Your task to perform on an android device: turn off smart reply in the gmail app Image 0: 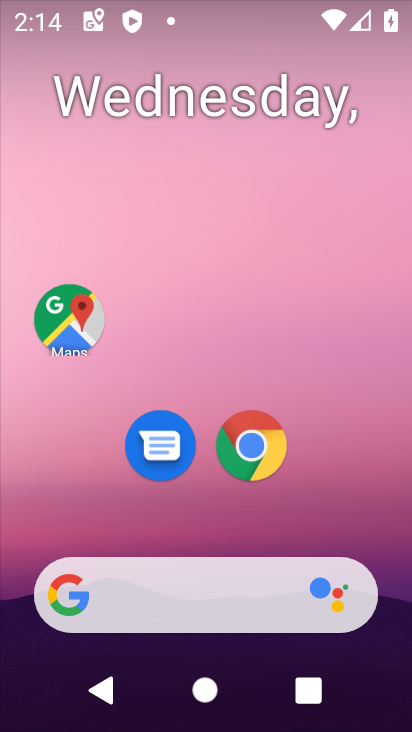
Step 0: drag from (218, 531) to (183, 212)
Your task to perform on an android device: turn off smart reply in the gmail app Image 1: 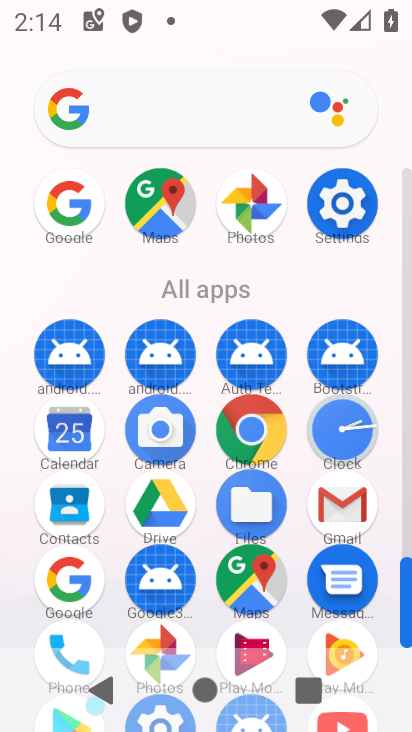
Step 1: click (318, 504)
Your task to perform on an android device: turn off smart reply in the gmail app Image 2: 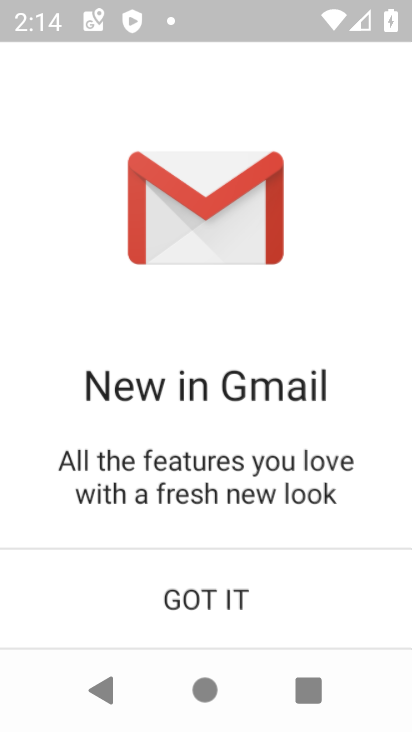
Step 2: click (226, 578)
Your task to perform on an android device: turn off smart reply in the gmail app Image 3: 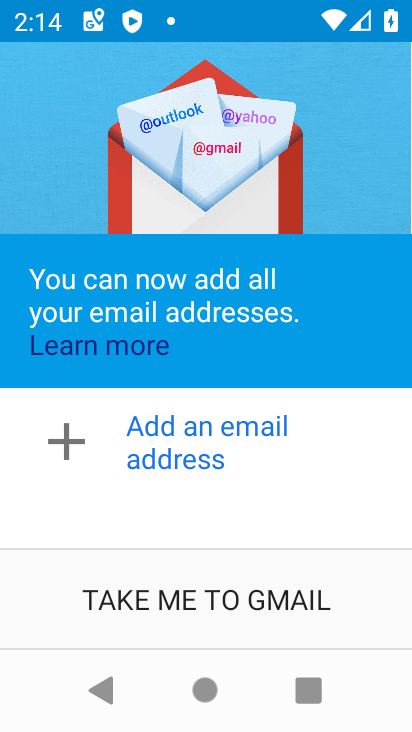
Step 3: click (226, 578)
Your task to perform on an android device: turn off smart reply in the gmail app Image 4: 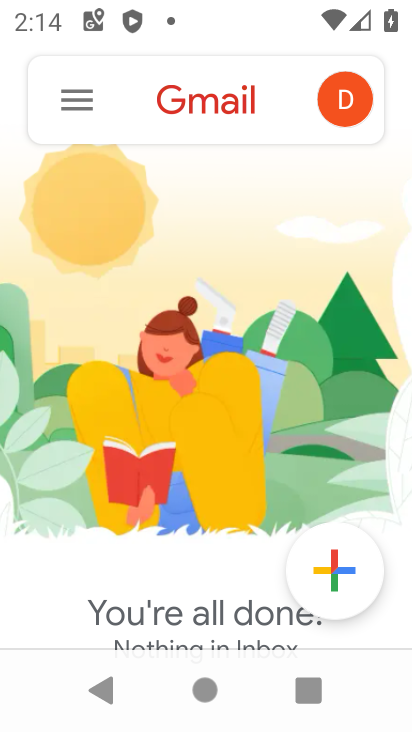
Step 4: click (70, 89)
Your task to perform on an android device: turn off smart reply in the gmail app Image 5: 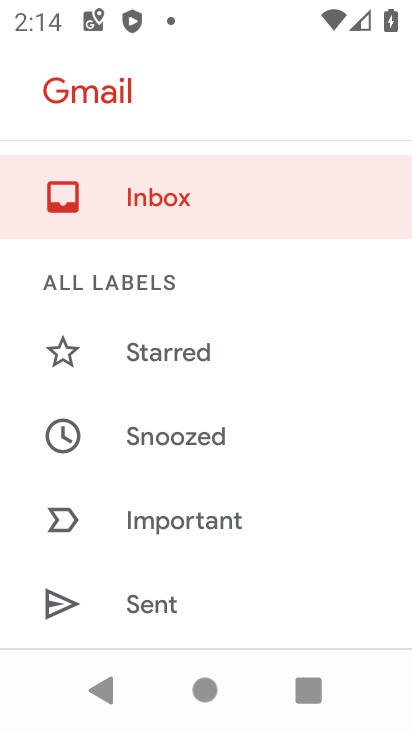
Step 5: click (180, 442)
Your task to perform on an android device: turn off smart reply in the gmail app Image 6: 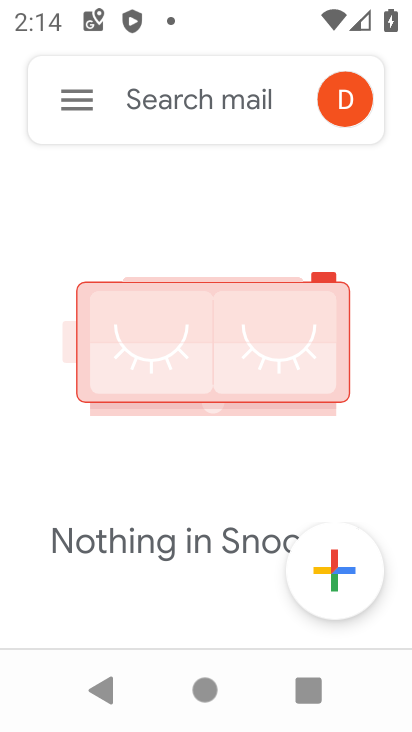
Step 6: click (86, 90)
Your task to perform on an android device: turn off smart reply in the gmail app Image 7: 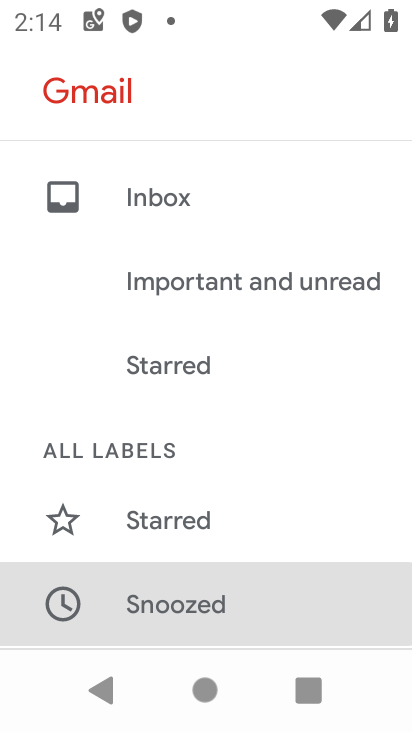
Step 7: drag from (235, 539) to (215, 319)
Your task to perform on an android device: turn off smart reply in the gmail app Image 8: 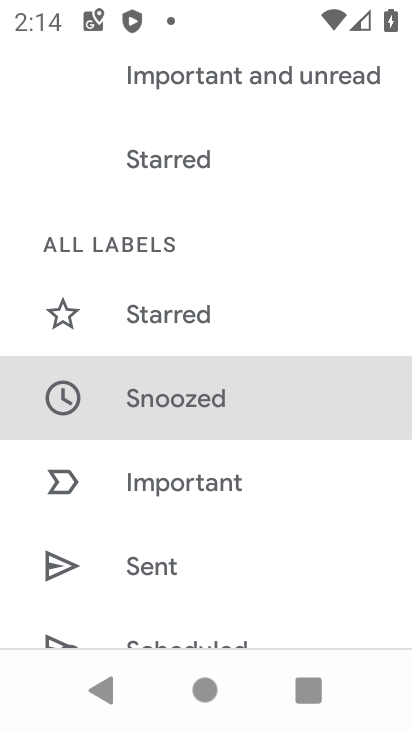
Step 8: drag from (233, 559) to (244, 288)
Your task to perform on an android device: turn off smart reply in the gmail app Image 9: 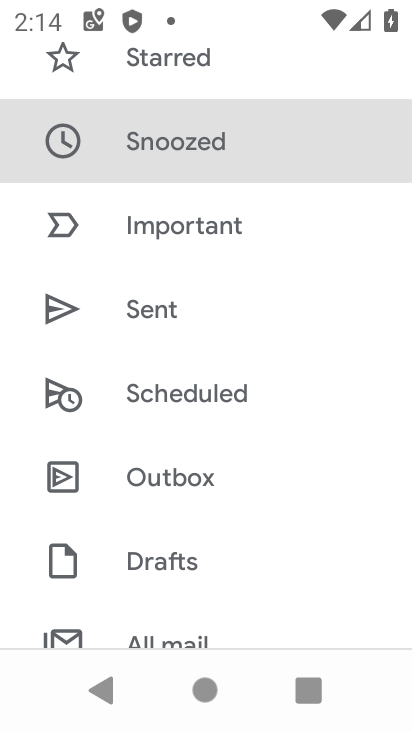
Step 9: drag from (239, 541) to (244, 256)
Your task to perform on an android device: turn off smart reply in the gmail app Image 10: 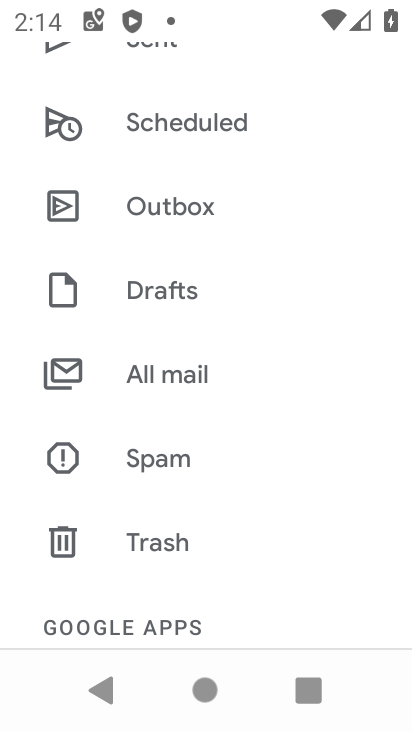
Step 10: drag from (209, 603) to (247, 341)
Your task to perform on an android device: turn off smart reply in the gmail app Image 11: 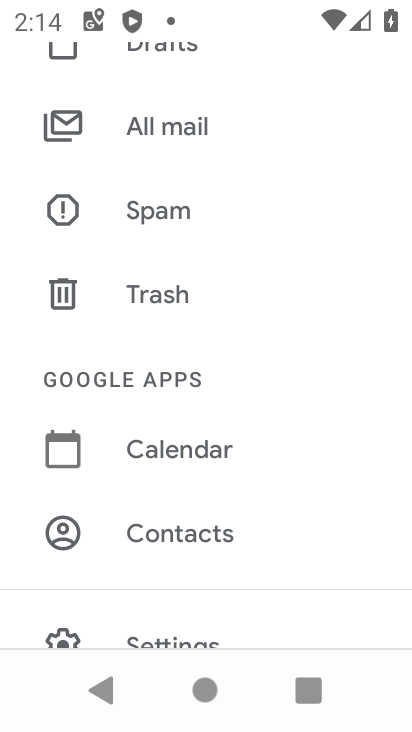
Step 11: click (210, 631)
Your task to perform on an android device: turn off smart reply in the gmail app Image 12: 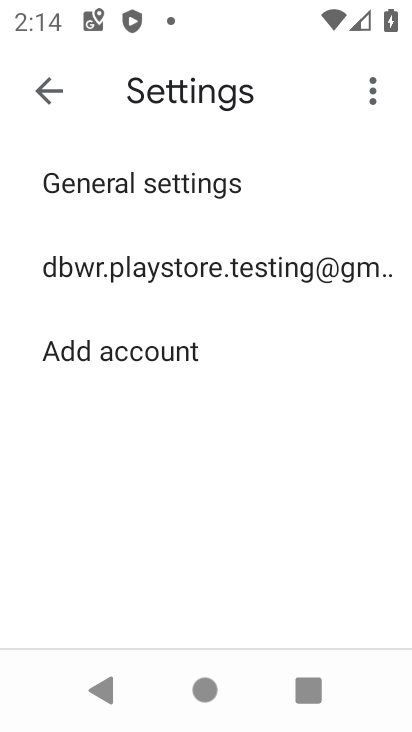
Step 12: click (238, 278)
Your task to perform on an android device: turn off smart reply in the gmail app Image 13: 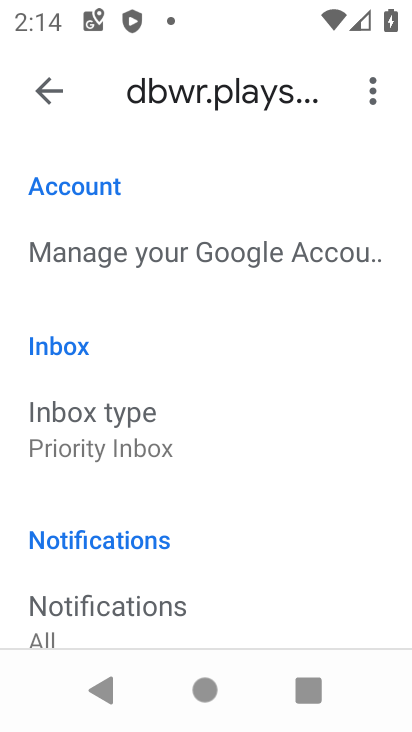
Step 13: drag from (274, 556) to (282, 327)
Your task to perform on an android device: turn off smart reply in the gmail app Image 14: 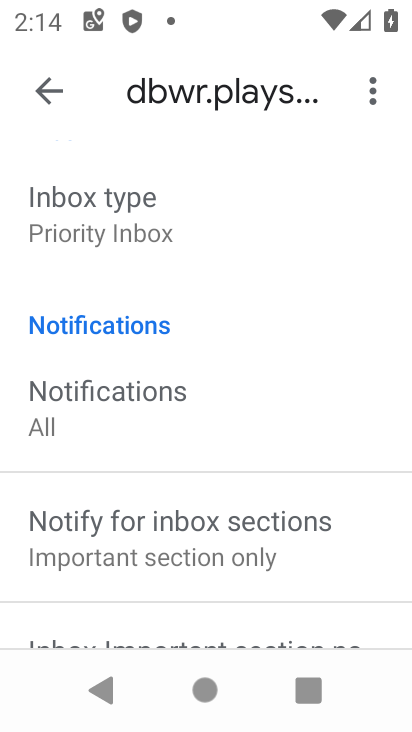
Step 14: drag from (271, 536) to (284, 254)
Your task to perform on an android device: turn off smart reply in the gmail app Image 15: 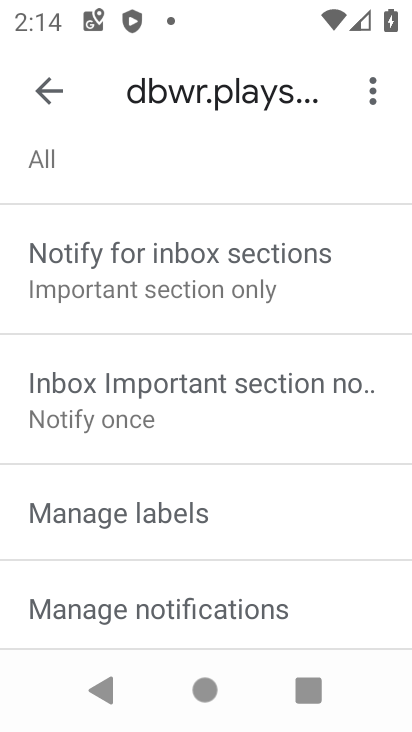
Step 15: drag from (270, 580) to (286, 296)
Your task to perform on an android device: turn off smart reply in the gmail app Image 16: 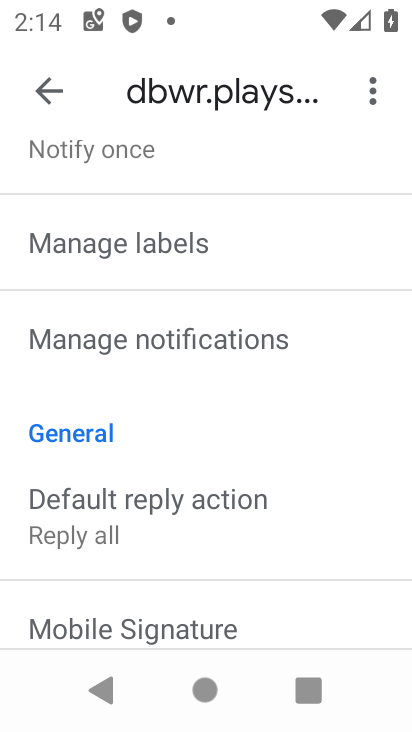
Step 16: drag from (239, 540) to (298, 258)
Your task to perform on an android device: turn off smart reply in the gmail app Image 17: 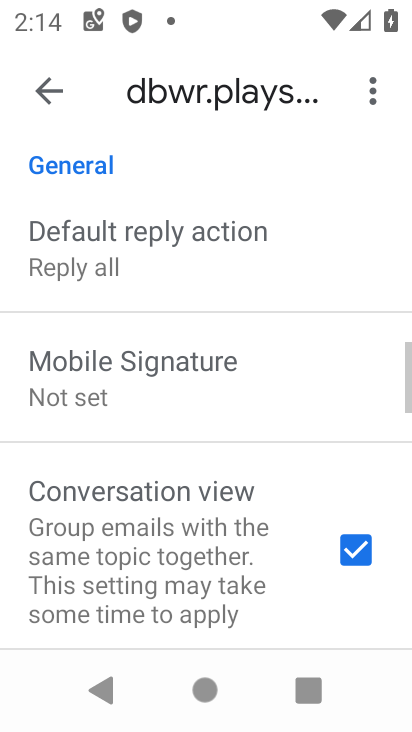
Step 17: drag from (248, 580) to (275, 331)
Your task to perform on an android device: turn off smart reply in the gmail app Image 18: 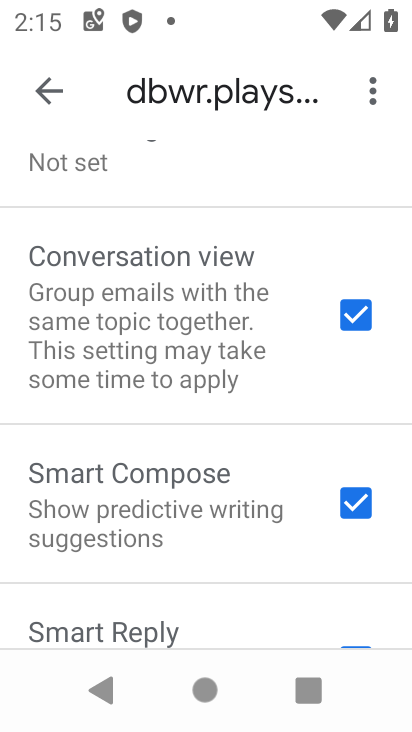
Step 18: drag from (247, 553) to (267, 360)
Your task to perform on an android device: turn off smart reply in the gmail app Image 19: 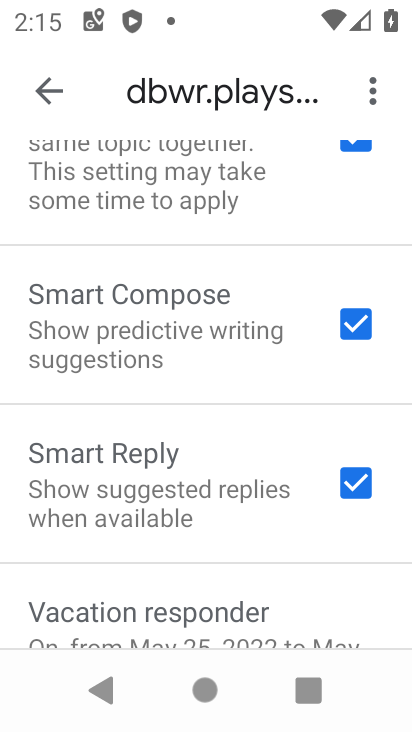
Step 19: click (352, 490)
Your task to perform on an android device: turn off smart reply in the gmail app Image 20: 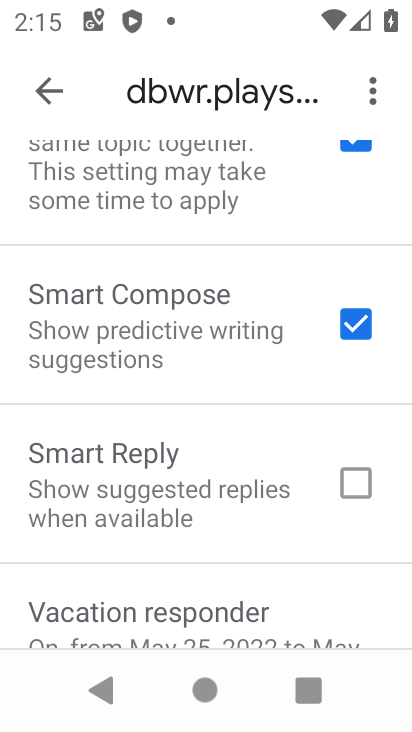
Step 20: task complete